Your task to perform on an android device: Open Maps and search for coffee Image 0: 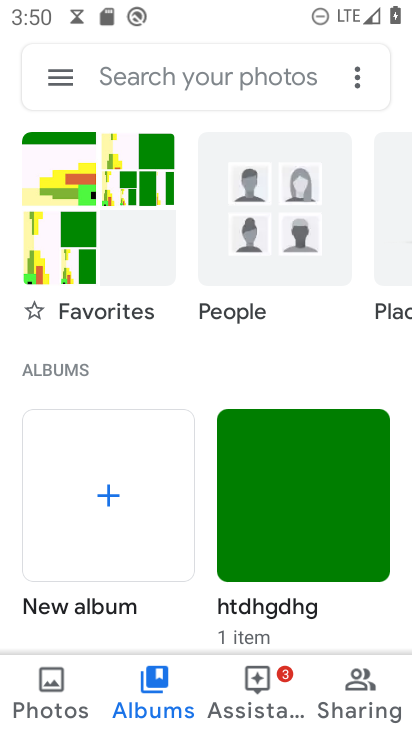
Step 0: press home button
Your task to perform on an android device: Open Maps and search for coffee Image 1: 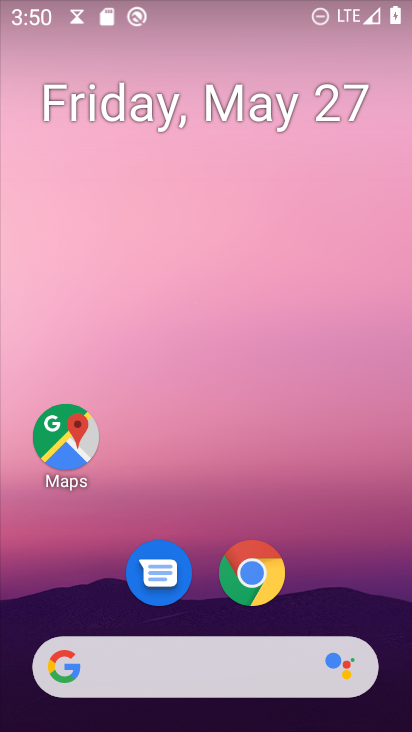
Step 1: click (64, 441)
Your task to perform on an android device: Open Maps and search for coffee Image 2: 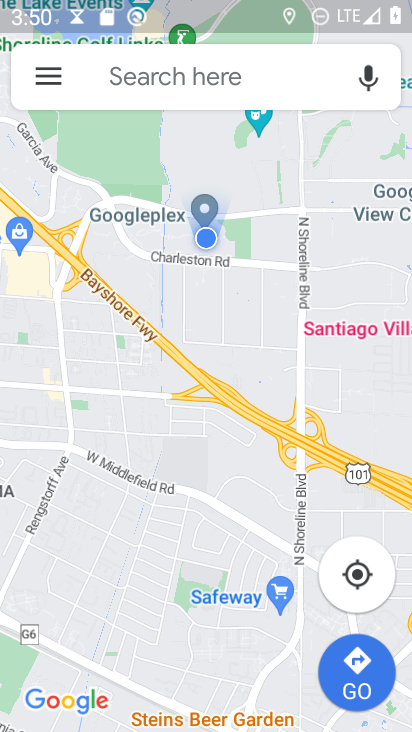
Step 2: click (167, 74)
Your task to perform on an android device: Open Maps and search for coffee Image 3: 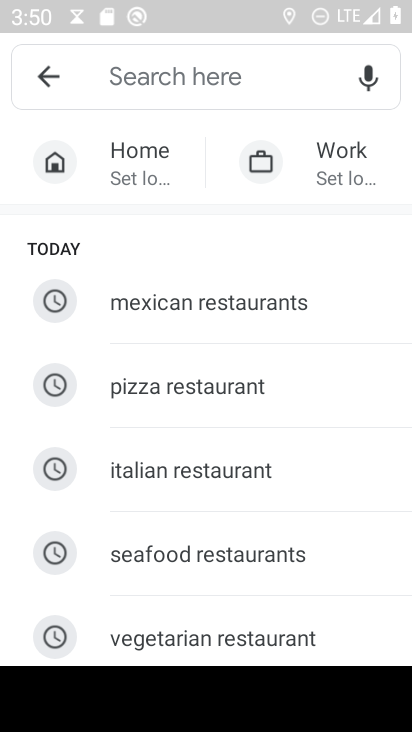
Step 3: type "coffee"
Your task to perform on an android device: Open Maps and search for coffee Image 4: 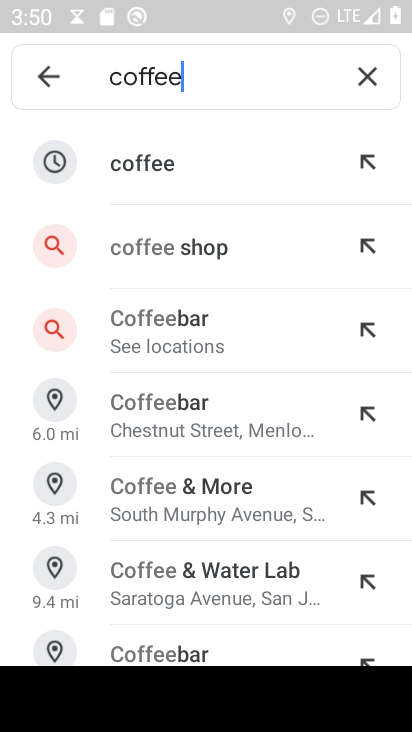
Step 4: click (162, 166)
Your task to perform on an android device: Open Maps and search for coffee Image 5: 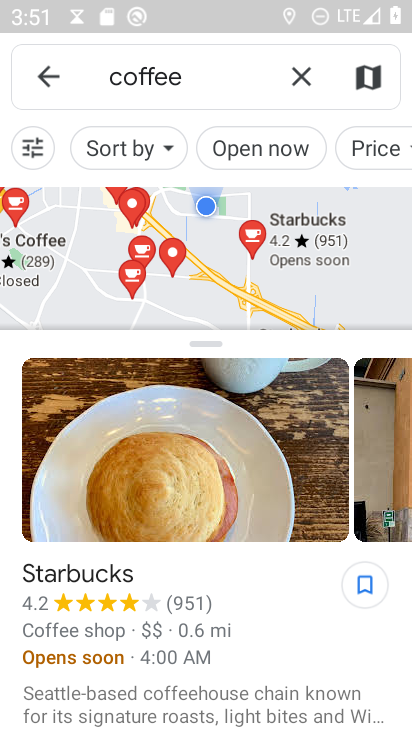
Step 5: task complete